Your task to perform on an android device: make emails show in primary in the gmail app Image 0: 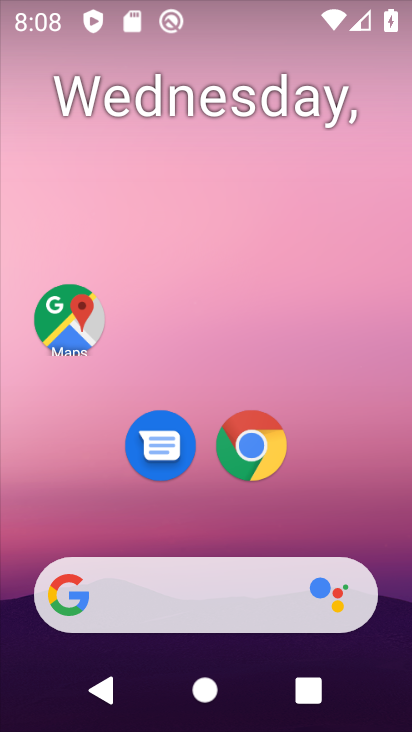
Step 0: drag from (257, 684) to (245, 141)
Your task to perform on an android device: make emails show in primary in the gmail app Image 1: 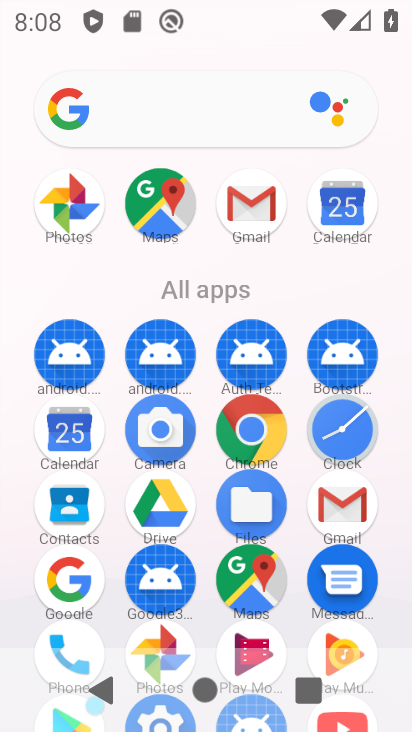
Step 1: click (243, 205)
Your task to perform on an android device: make emails show in primary in the gmail app Image 2: 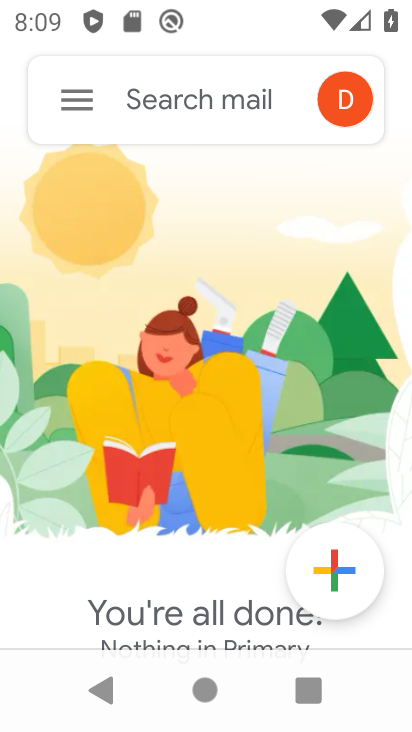
Step 2: click (69, 98)
Your task to perform on an android device: make emails show in primary in the gmail app Image 3: 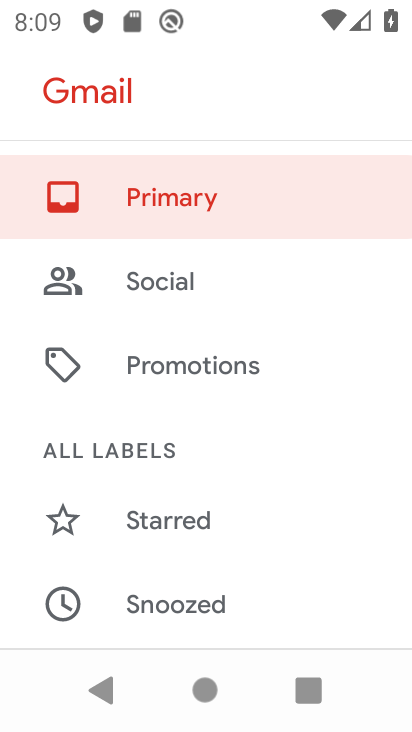
Step 3: drag from (165, 573) to (174, 245)
Your task to perform on an android device: make emails show in primary in the gmail app Image 4: 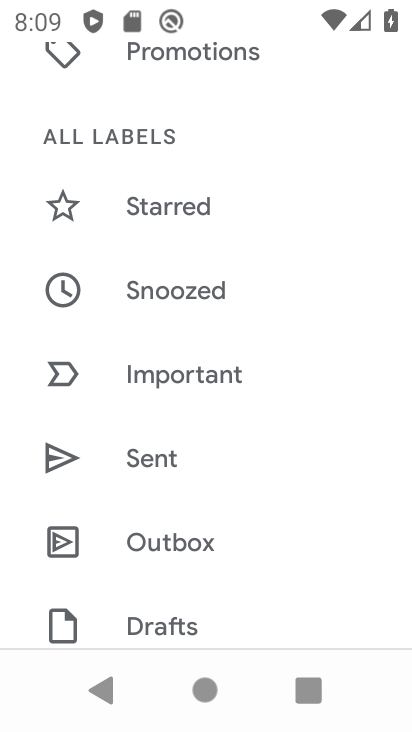
Step 4: drag from (189, 556) to (187, 235)
Your task to perform on an android device: make emails show in primary in the gmail app Image 5: 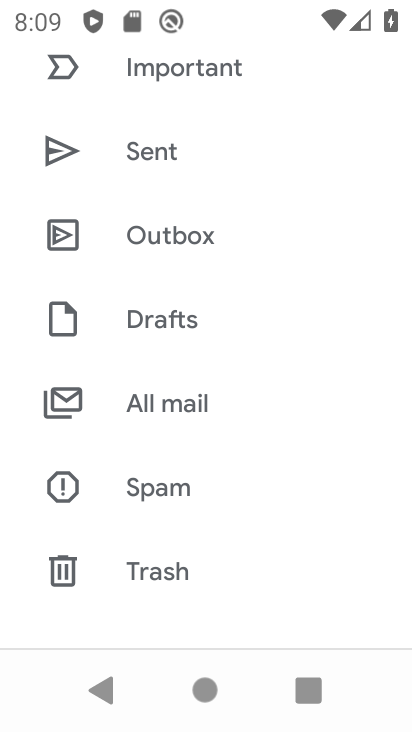
Step 5: drag from (170, 529) to (170, 201)
Your task to perform on an android device: make emails show in primary in the gmail app Image 6: 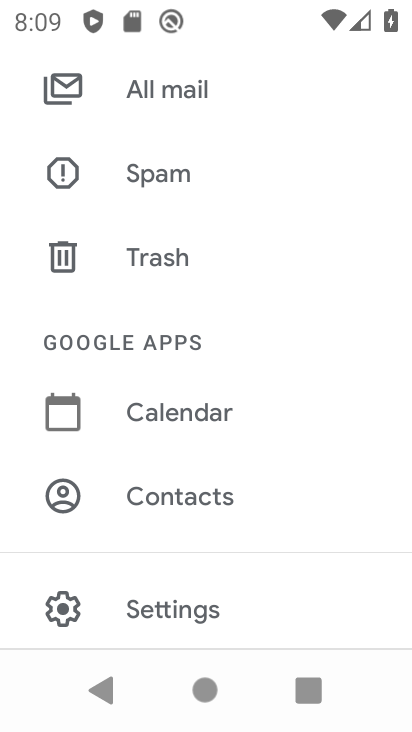
Step 6: click (165, 611)
Your task to perform on an android device: make emails show in primary in the gmail app Image 7: 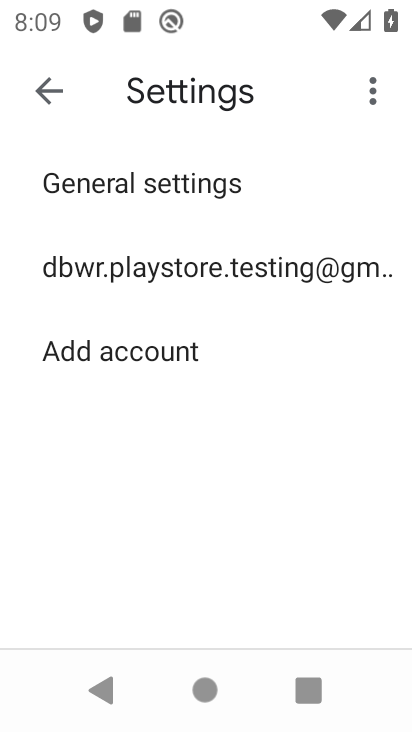
Step 7: click (164, 267)
Your task to perform on an android device: make emails show in primary in the gmail app Image 8: 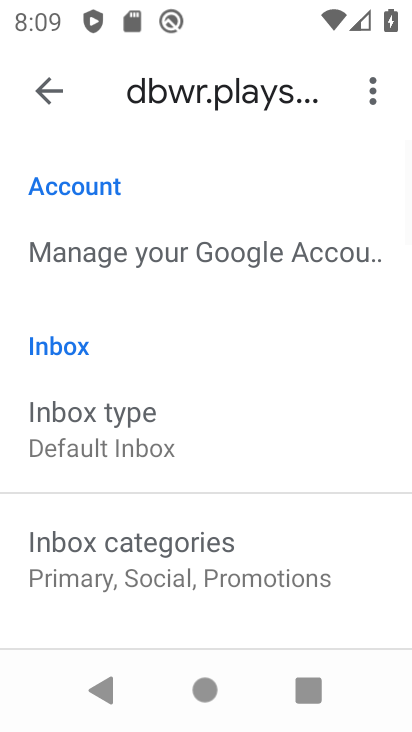
Step 8: drag from (138, 534) to (145, 385)
Your task to perform on an android device: make emails show in primary in the gmail app Image 9: 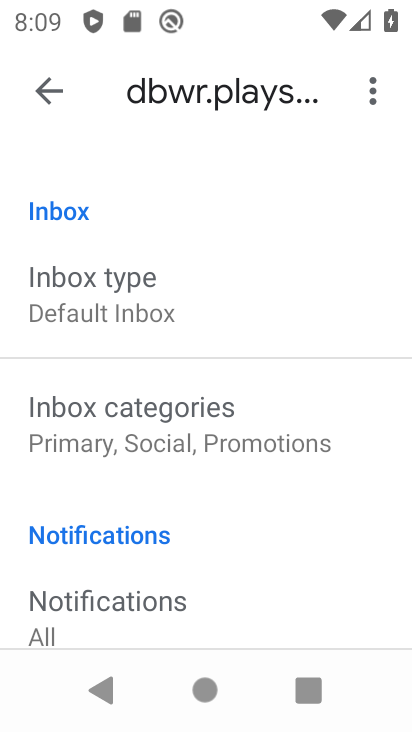
Step 9: drag from (141, 553) to (149, 370)
Your task to perform on an android device: make emails show in primary in the gmail app Image 10: 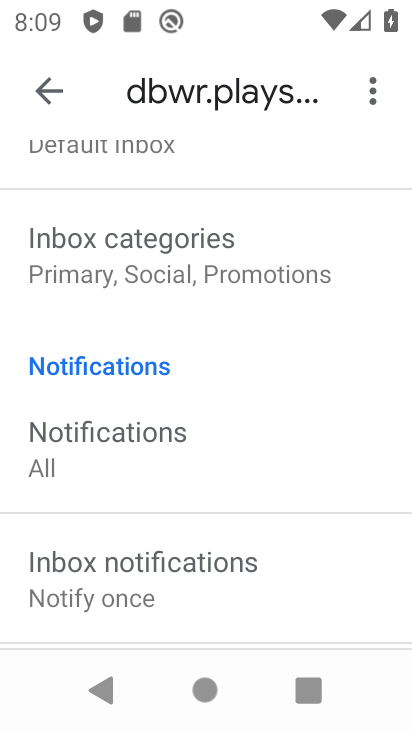
Step 10: click (116, 267)
Your task to perform on an android device: make emails show in primary in the gmail app Image 11: 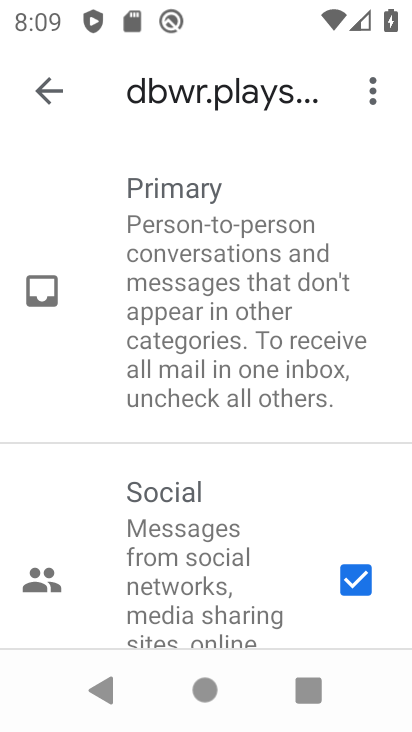
Step 11: click (345, 568)
Your task to perform on an android device: make emails show in primary in the gmail app Image 12: 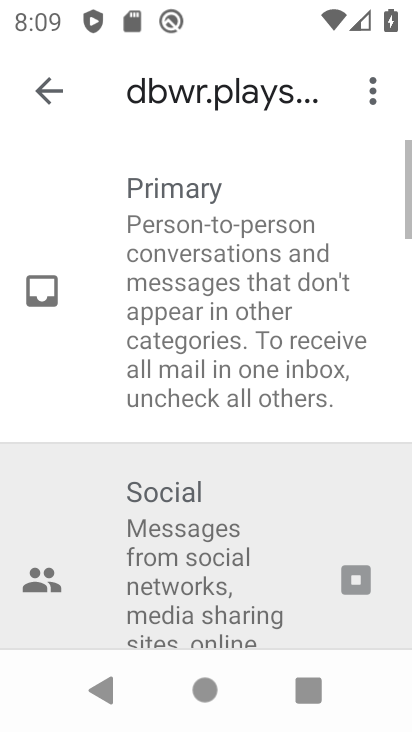
Step 12: drag from (241, 592) to (244, 272)
Your task to perform on an android device: make emails show in primary in the gmail app Image 13: 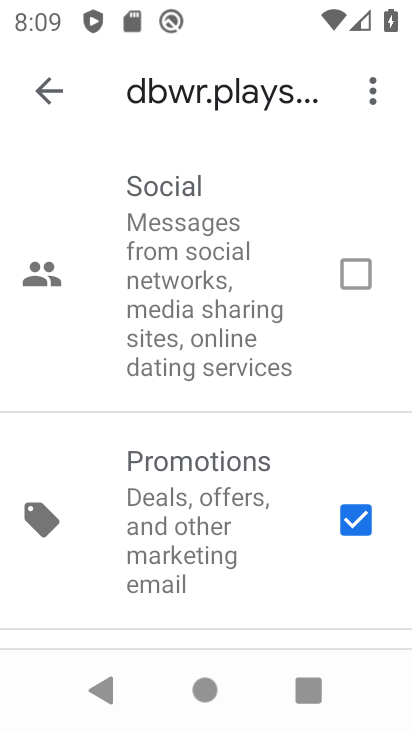
Step 13: click (359, 514)
Your task to perform on an android device: make emails show in primary in the gmail app Image 14: 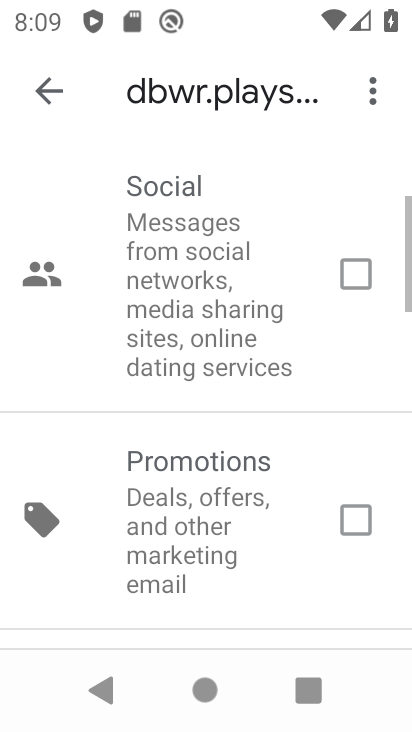
Step 14: drag from (312, 607) to (296, 298)
Your task to perform on an android device: make emails show in primary in the gmail app Image 15: 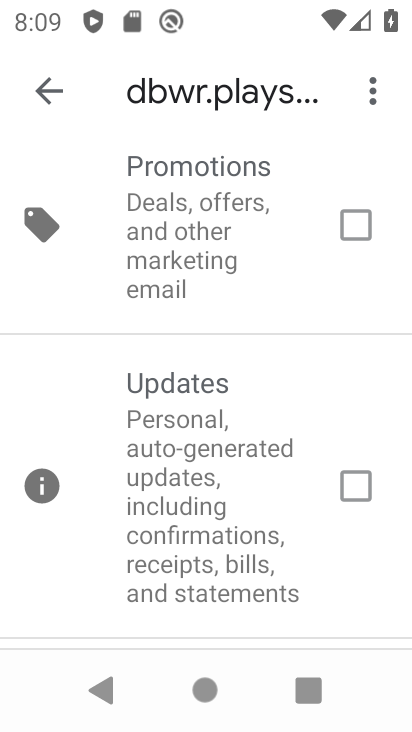
Step 15: click (46, 91)
Your task to perform on an android device: make emails show in primary in the gmail app Image 16: 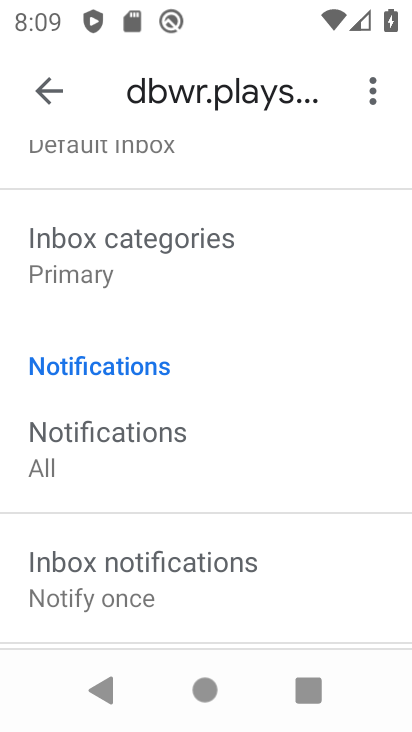
Step 16: task complete